Your task to perform on an android device: delete location history Image 0: 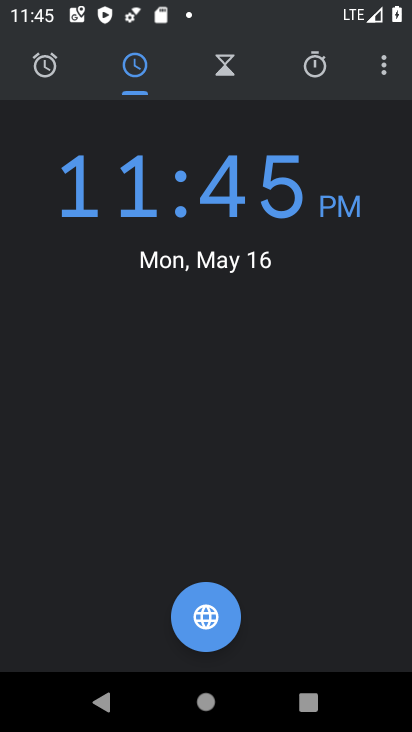
Step 0: press home button
Your task to perform on an android device: delete location history Image 1: 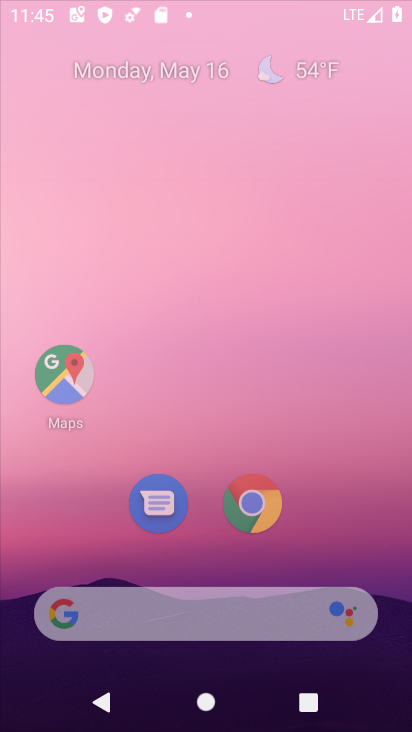
Step 1: press home button
Your task to perform on an android device: delete location history Image 2: 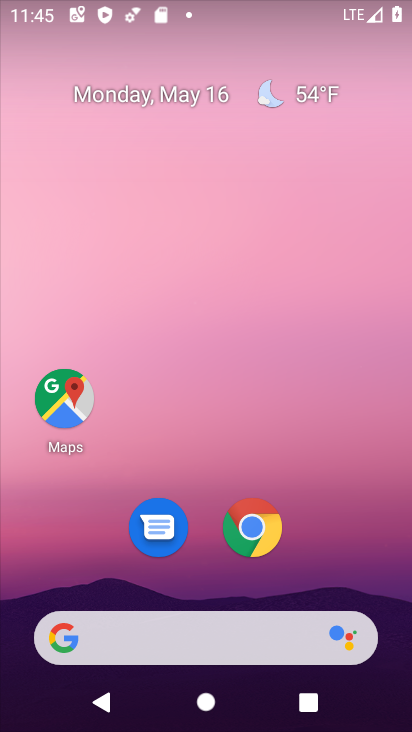
Step 2: drag from (262, 673) to (275, 280)
Your task to perform on an android device: delete location history Image 3: 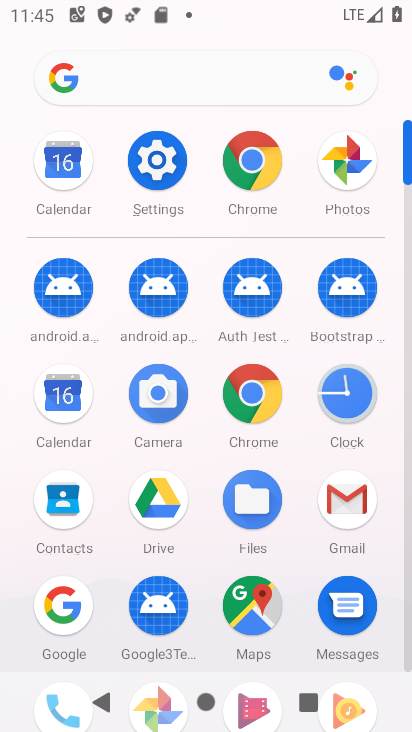
Step 3: click (164, 171)
Your task to perform on an android device: delete location history Image 4: 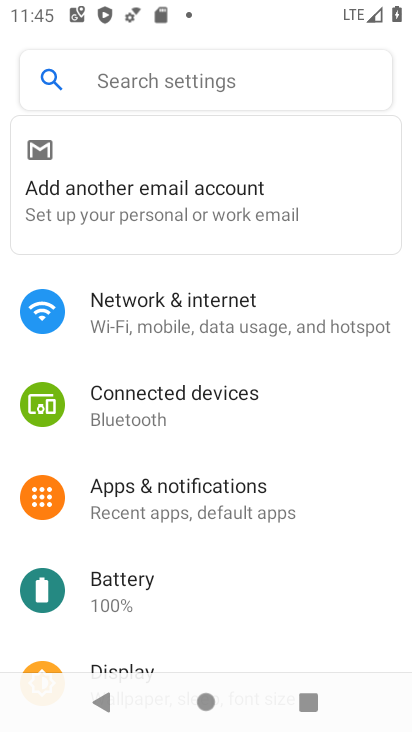
Step 4: click (173, 70)
Your task to perform on an android device: delete location history Image 5: 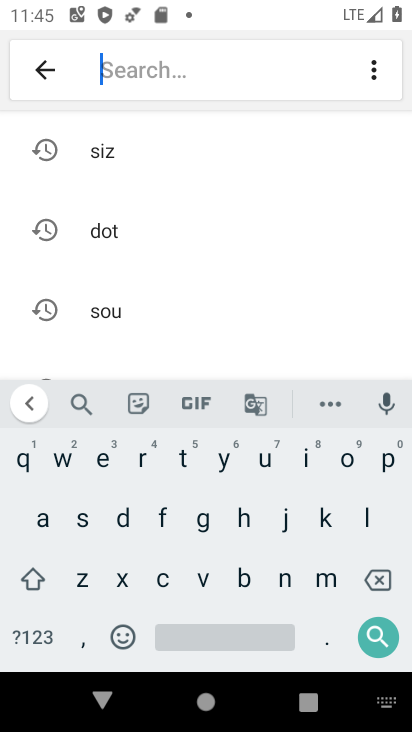
Step 5: click (359, 519)
Your task to perform on an android device: delete location history Image 6: 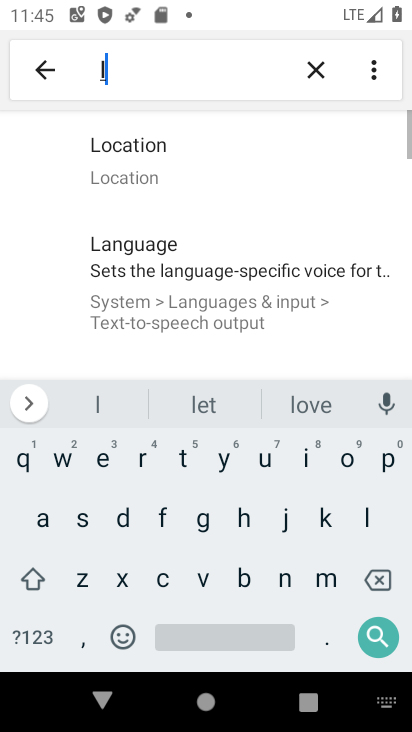
Step 6: click (338, 457)
Your task to perform on an android device: delete location history Image 7: 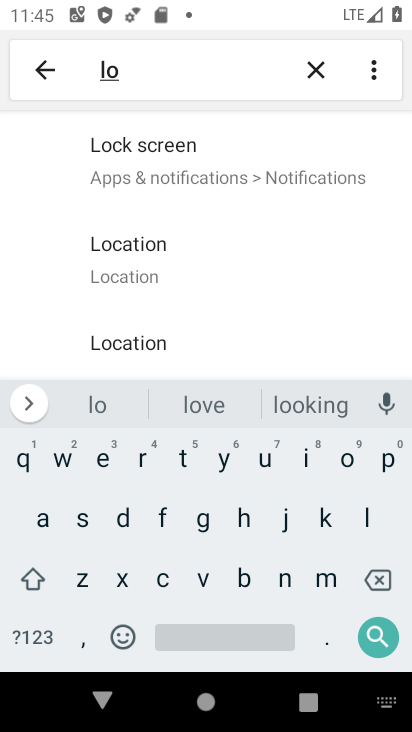
Step 7: click (146, 260)
Your task to perform on an android device: delete location history Image 8: 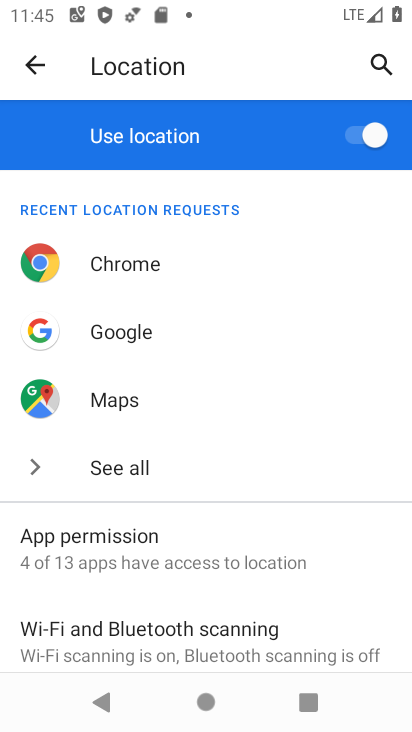
Step 8: drag from (137, 555) to (203, 334)
Your task to perform on an android device: delete location history Image 9: 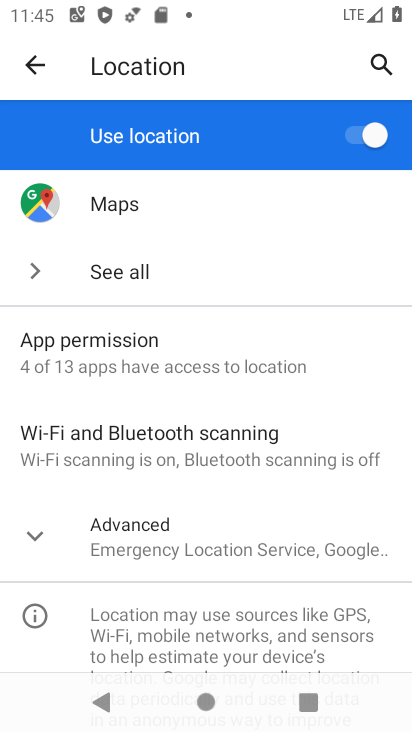
Step 9: click (131, 555)
Your task to perform on an android device: delete location history Image 10: 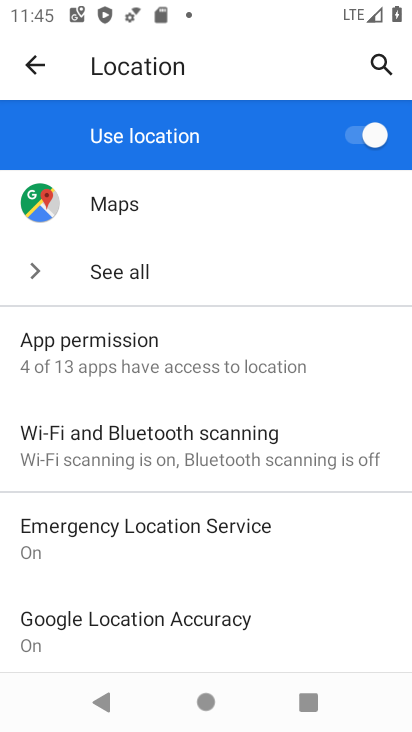
Step 10: drag from (193, 606) to (245, 428)
Your task to perform on an android device: delete location history Image 11: 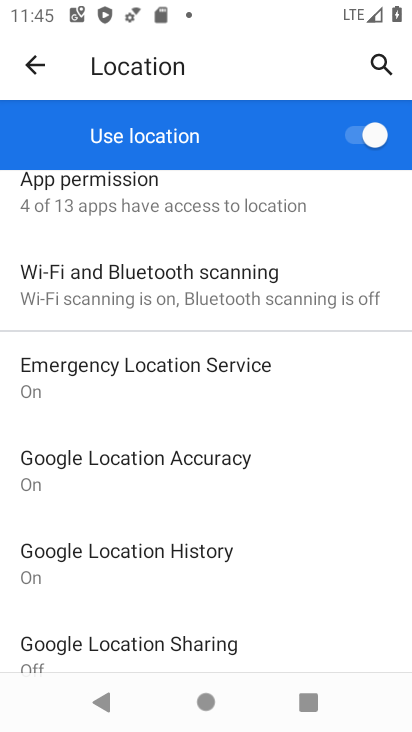
Step 11: click (148, 554)
Your task to perform on an android device: delete location history Image 12: 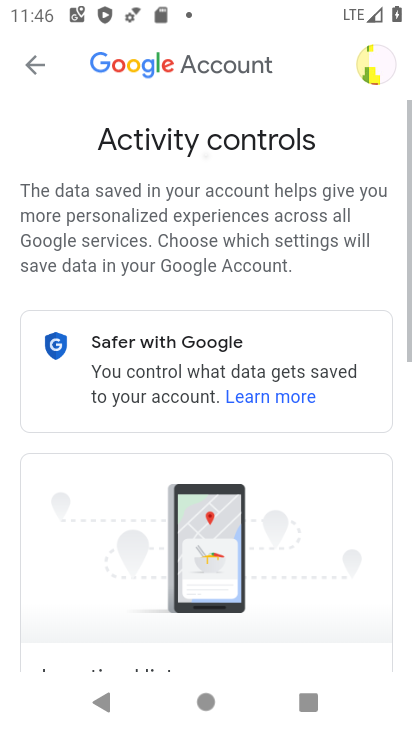
Step 12: task complete